Your task to perform on an android device: Go to Google maps Image 0: 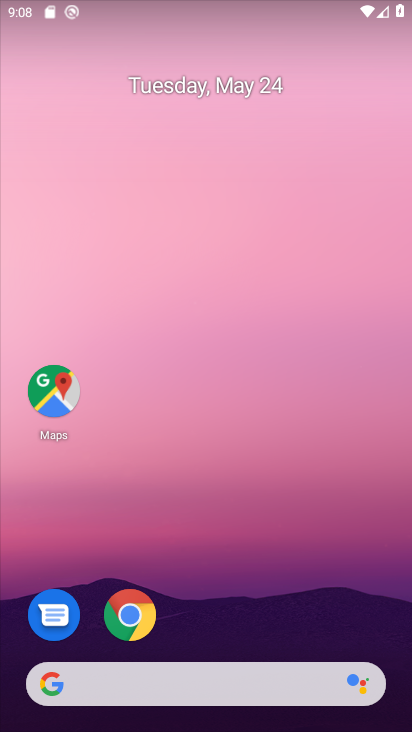
Step 0: drag from (396, 633) to (383, 236)
Your task to perform on an android device: Go to Google maps Image 1: 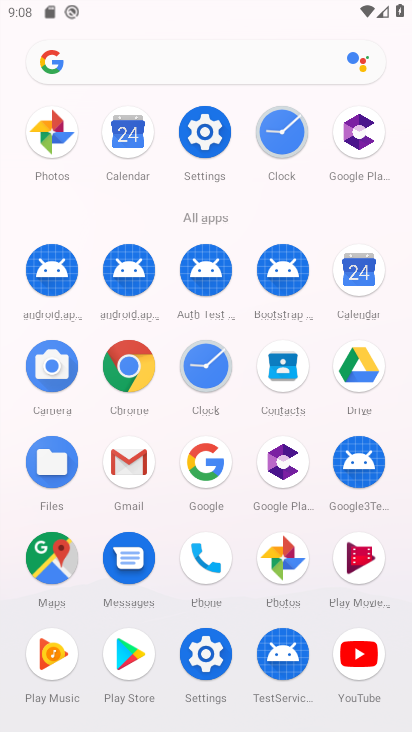
Step 1: click (66, 579)
Your task to perform on an android device: Go to Google maps Image 2: 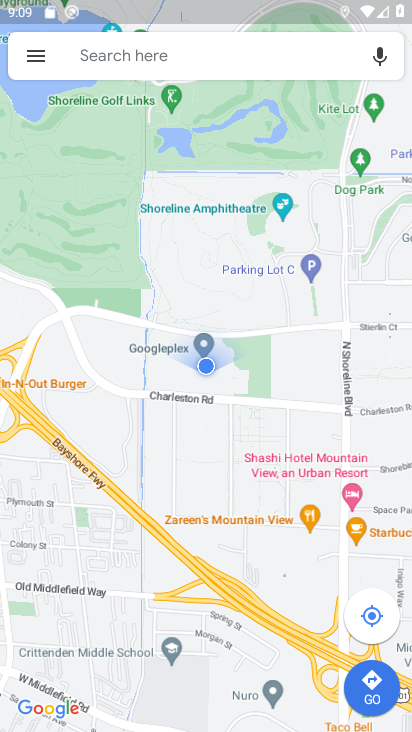
Step 2: task complete